Your task to perform on an android device: open app "Etsy: Buy & Sell Unique Items" (install if not already installed) and go to login screen Image 0: 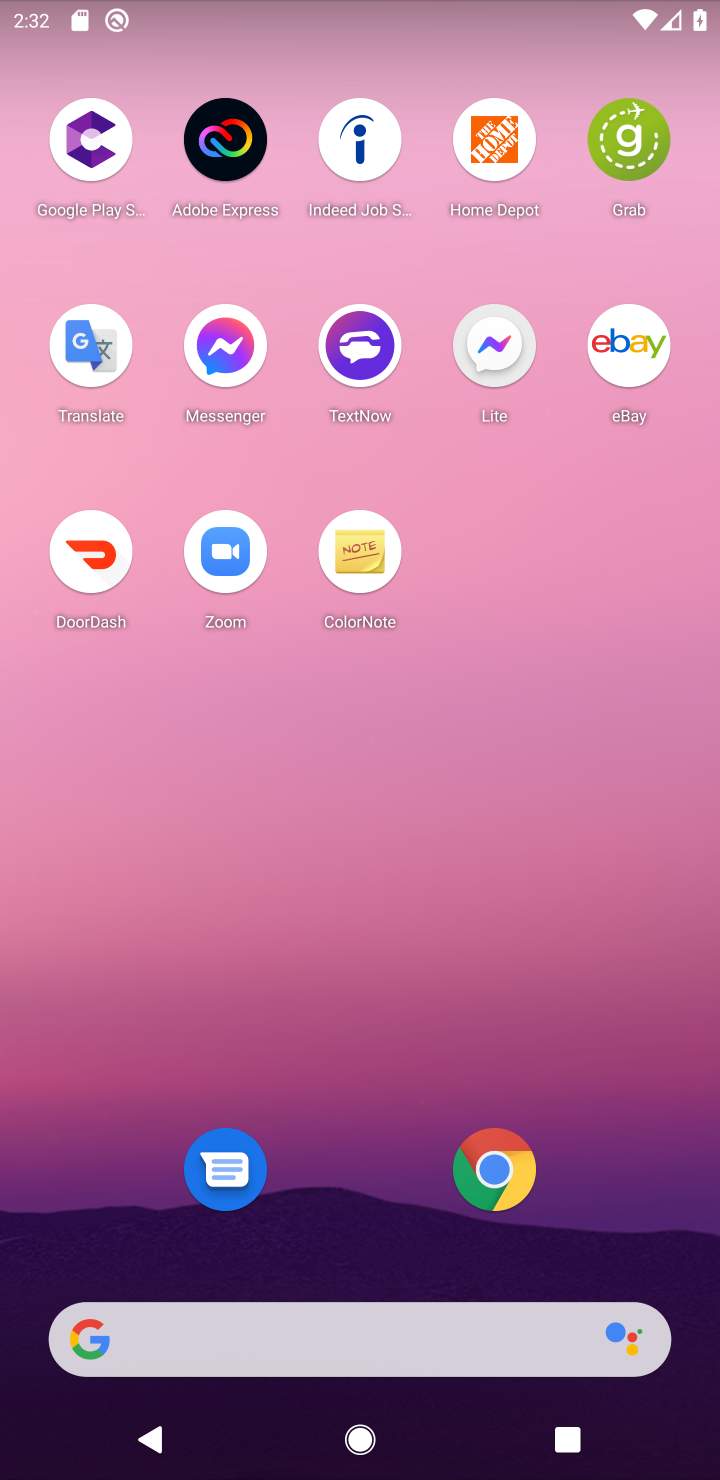
Step 0: drag from (382, 1256) to (441, 13)
Your task to perform on an android device: open app "Etsy: Buy & Sell Unique Items" (install if not already installed) and go to login screen Image 1: 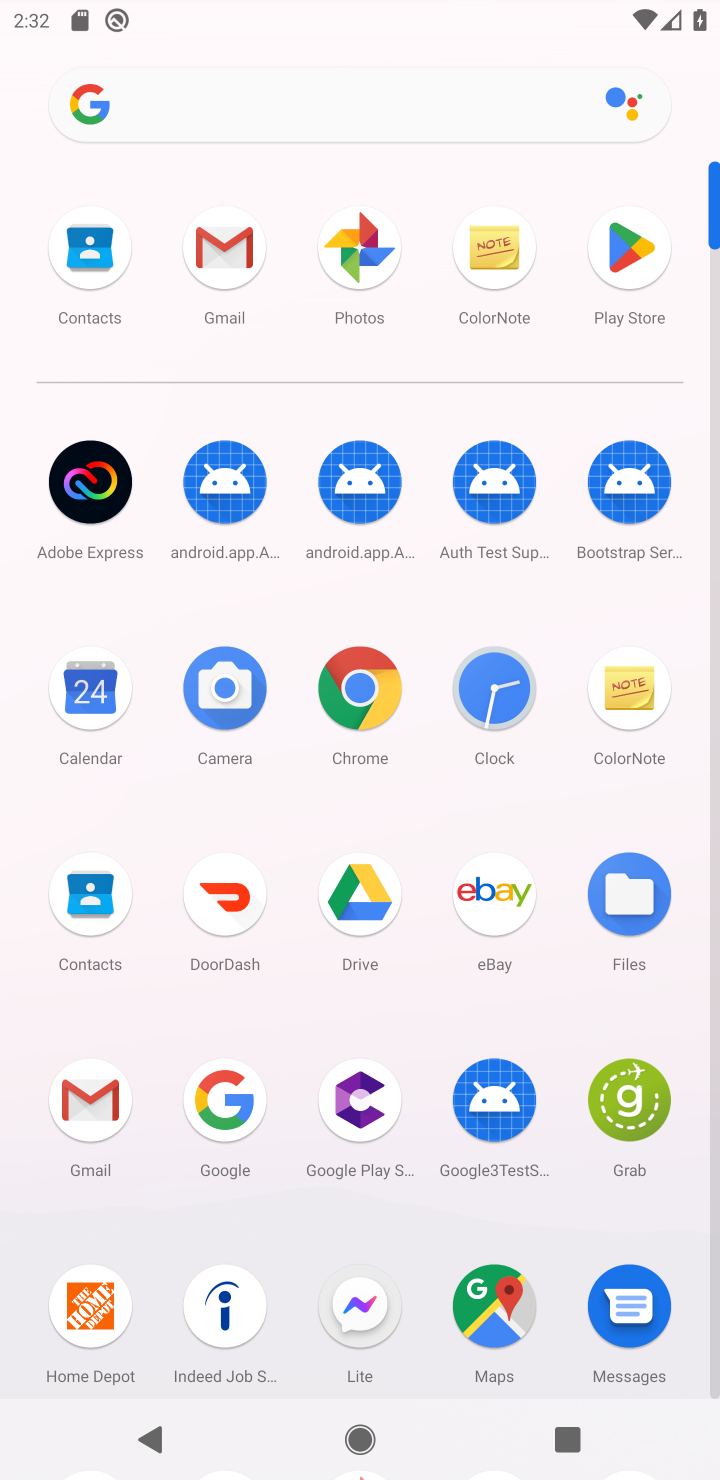
Step 1: click (600, 223)
Your task to perform on an android device: open app "Etsy: Buy & Sell Unique Items" (install if not already installed) and go to login screen Image 2: 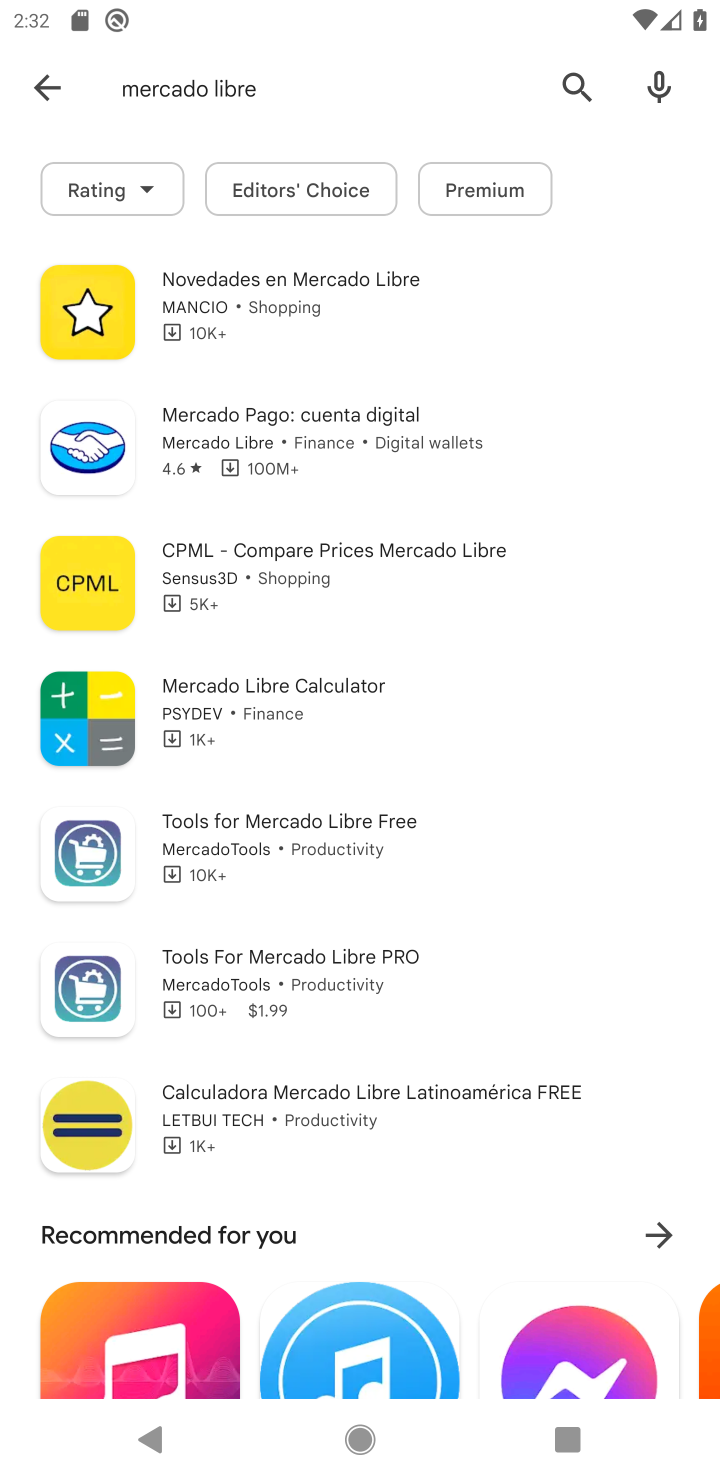
Step 2: click (44, 72)
Your task to perform on an android device: open app "Etsy: Buy & Sell Unique Items" (install if not already installed) and go to login screen Image 3: 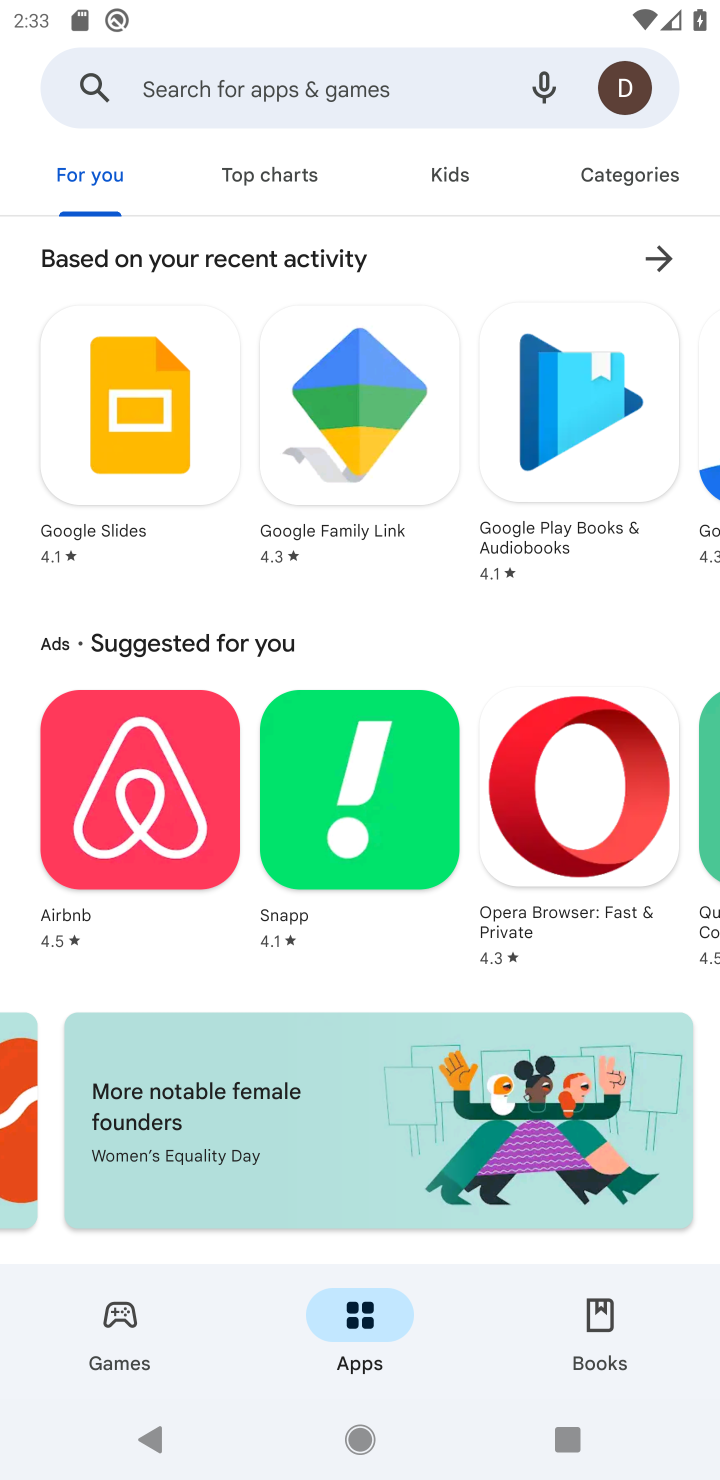
Step 3: click (162, 80)
Your task to perform on an android device: open app "Etsy: Buy & Sell Unique Items" (install if not already installed) and go to login screen Image 4: 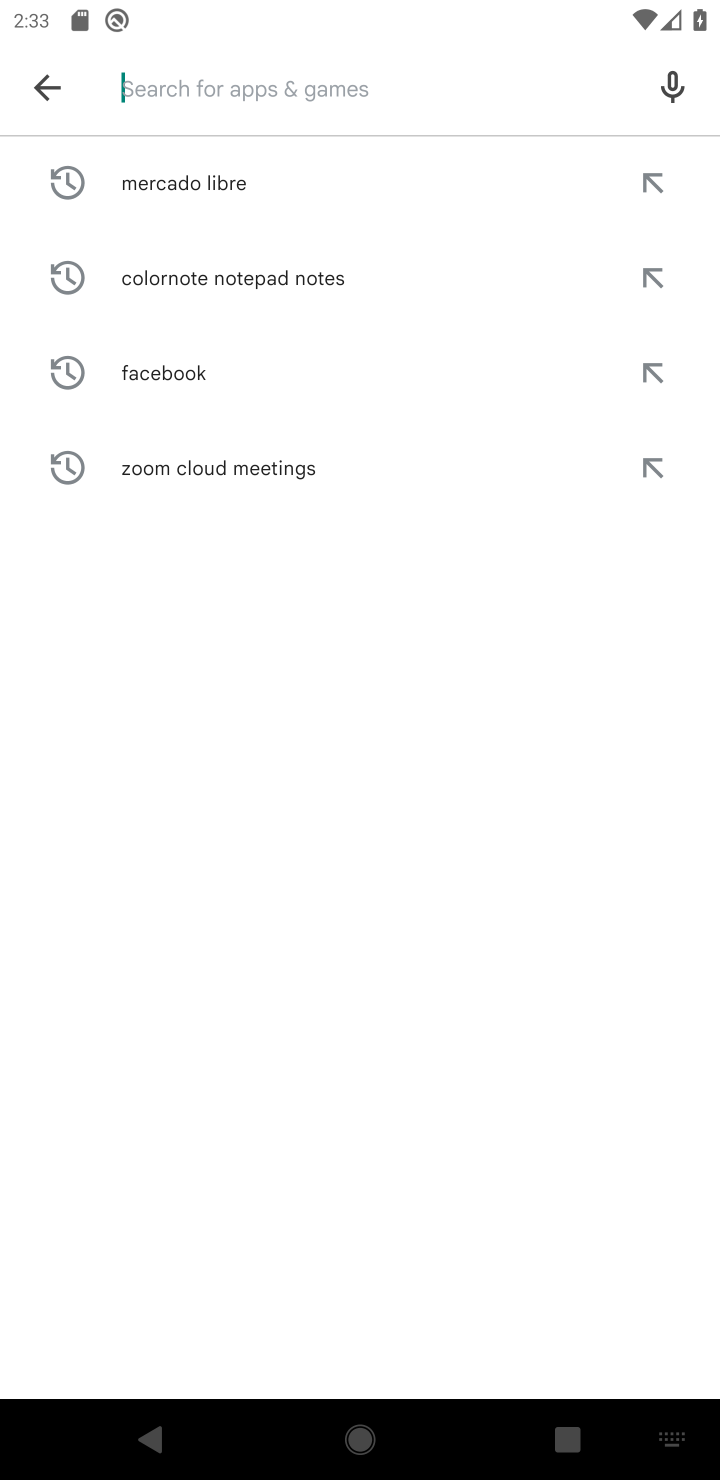
Step 4: drag from (247, 1262) to (259, 1332)
Your task to perform on an android device: open app "Etsy: Buy & Sell Unique Items" (install if not already installed) and go to login screen Image 5: 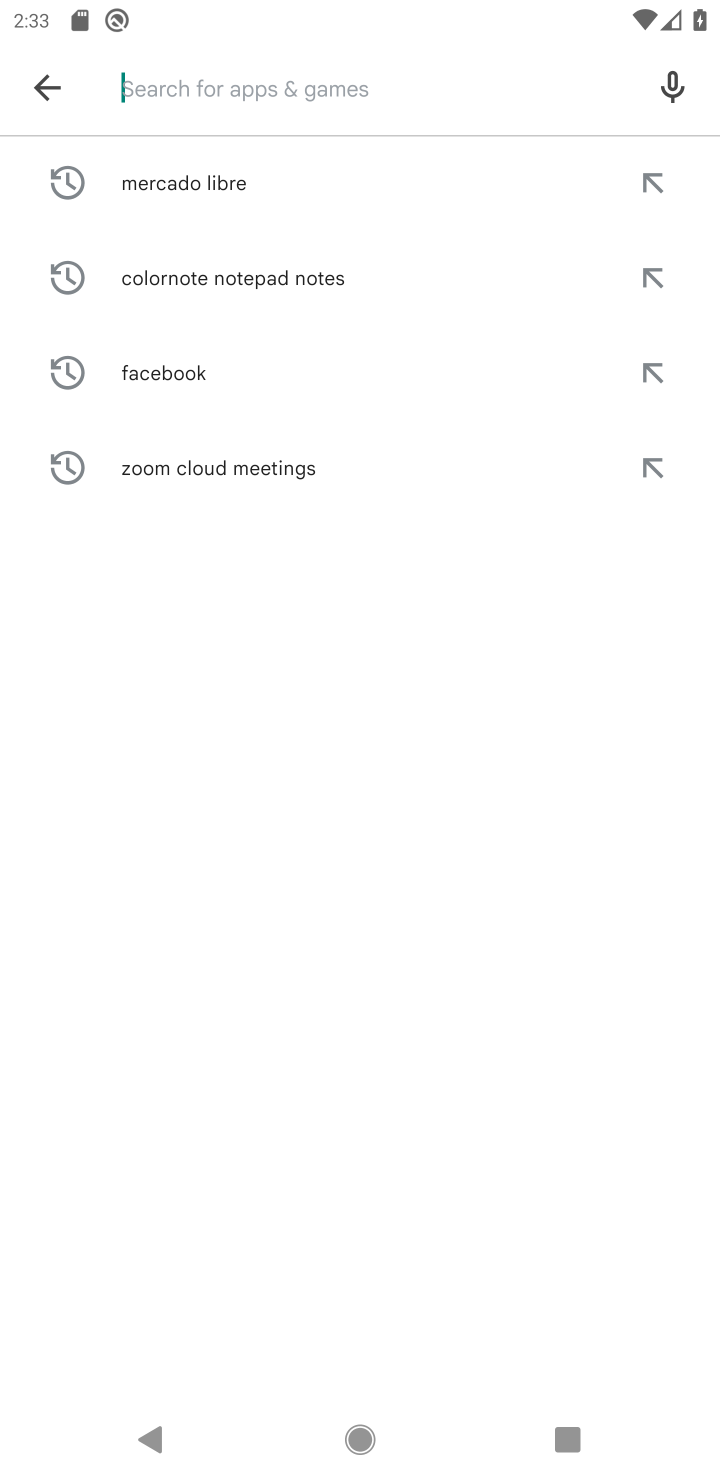
Step 5: type "Etsy"
Your task to perform on an android device: open app "Etsy: Buy & Sell Unique Items" (install if not already installed) and go to login screen Image 6: 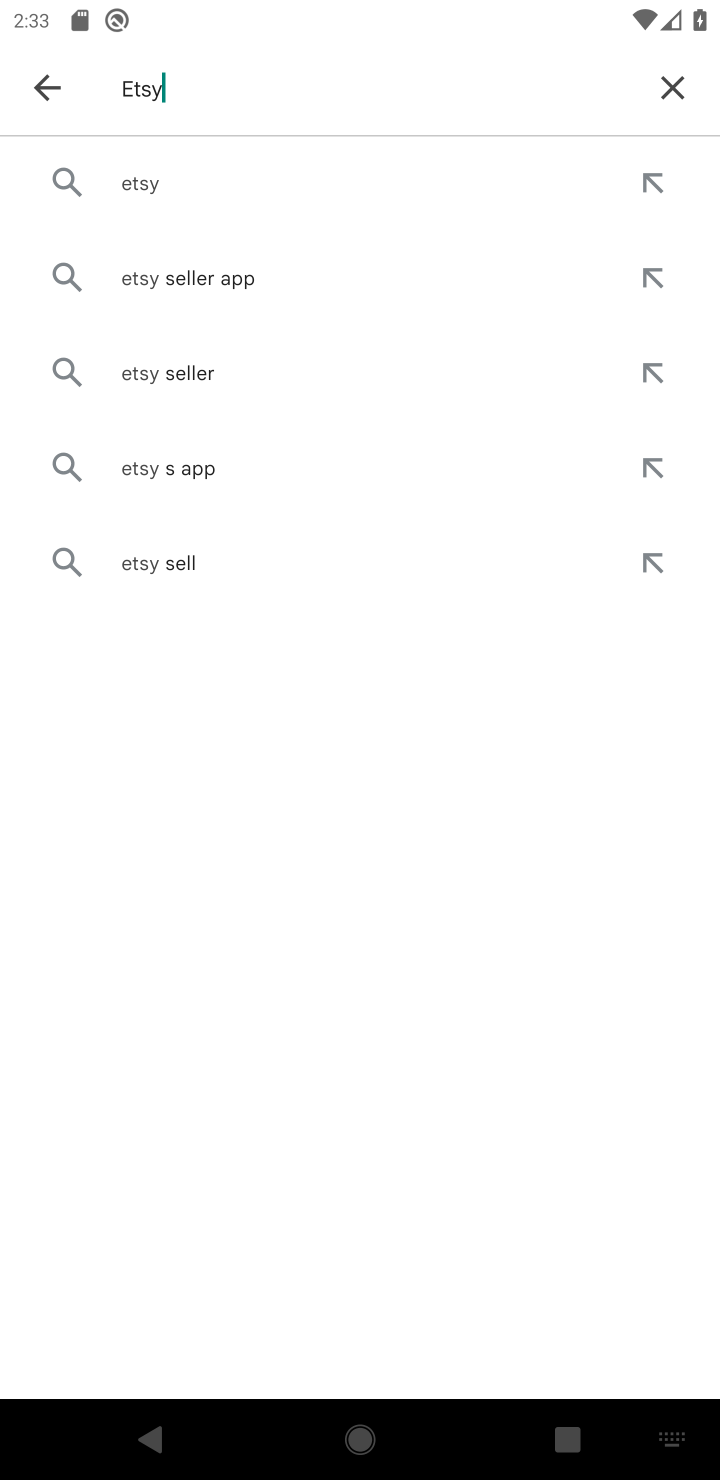
Step 6: click (143, 163)
Your task to perform on an android device: open app "Etsy: Buy & Sell Unique Items" (install if not already installed) and go to login screen Image 7: 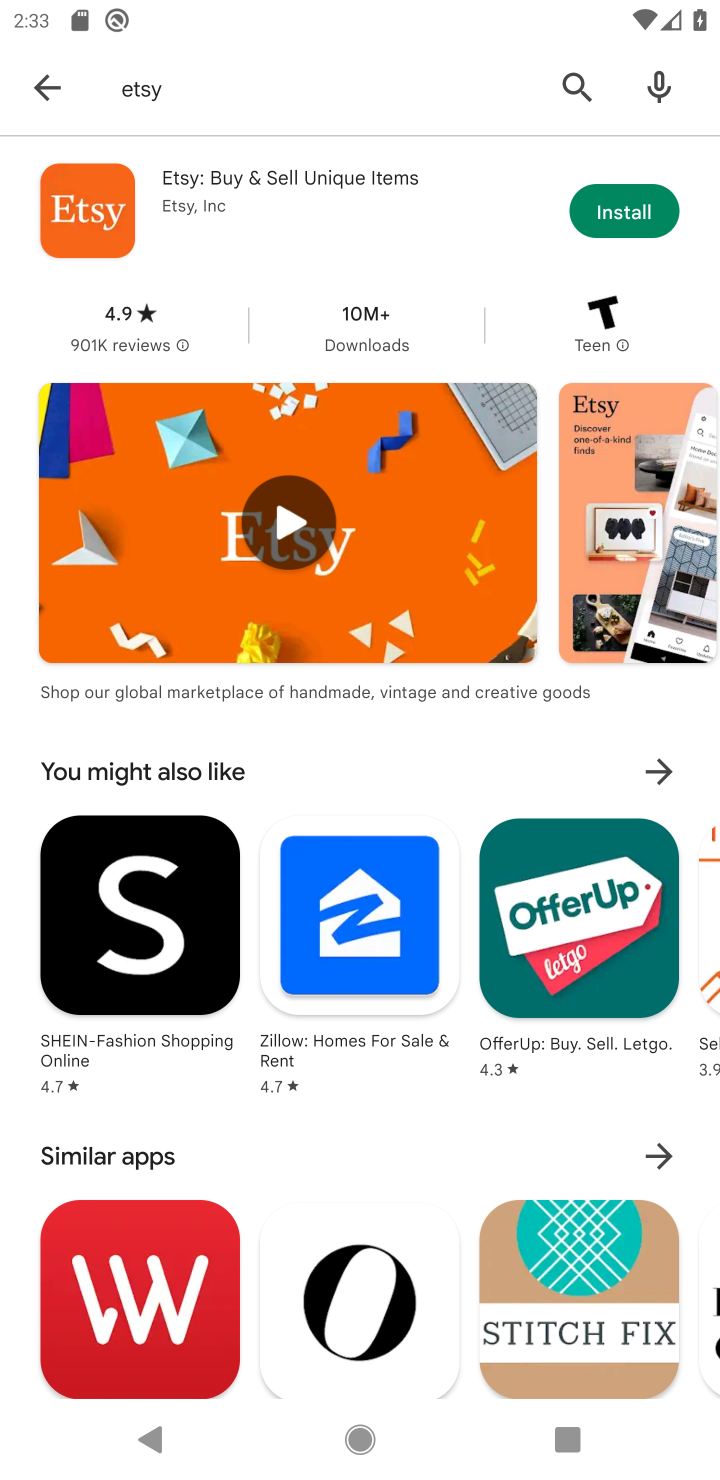
Step 7: click (607, 201)
Your task to perform on an android device: open app "Etsy: Buy & Sell Unique Items" (install if not already installed) and go to login screen Image 8: 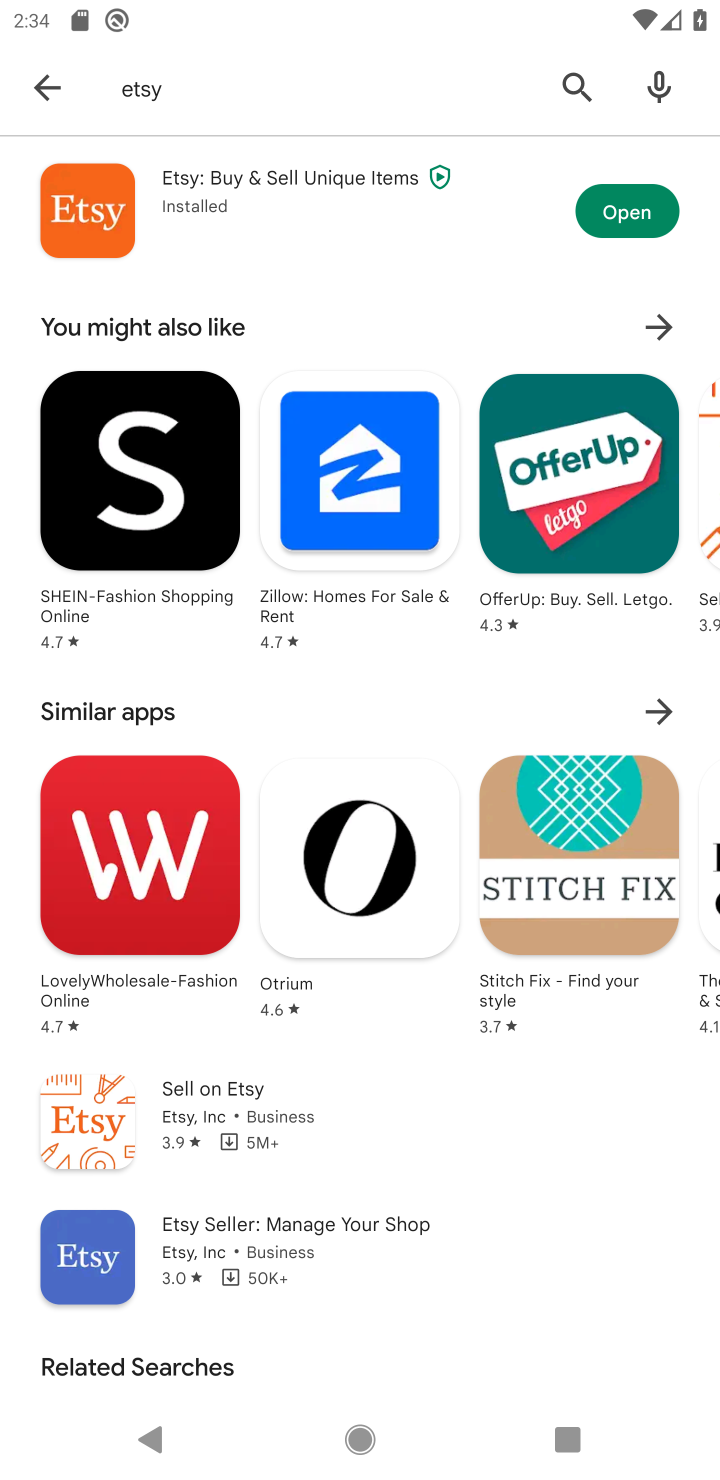
Step 8: click (644, 188)
Your task to perform on an android device: open app "Etsy: Buy & Sell Unique Items" (install if not already installed) and go to login screen Image 9: 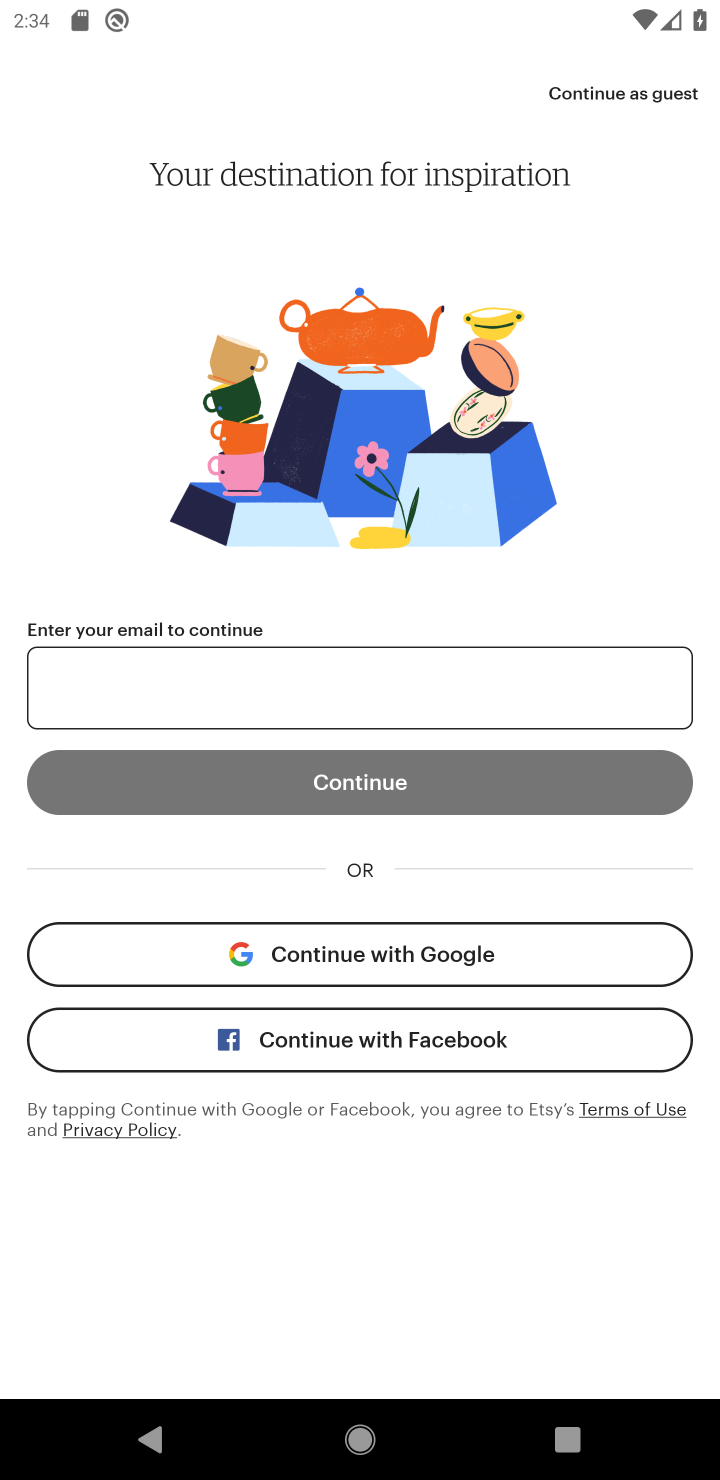
Step 9: task complete